Your task to perform on an android device: Go to calendar. Show me events next week Image 0: 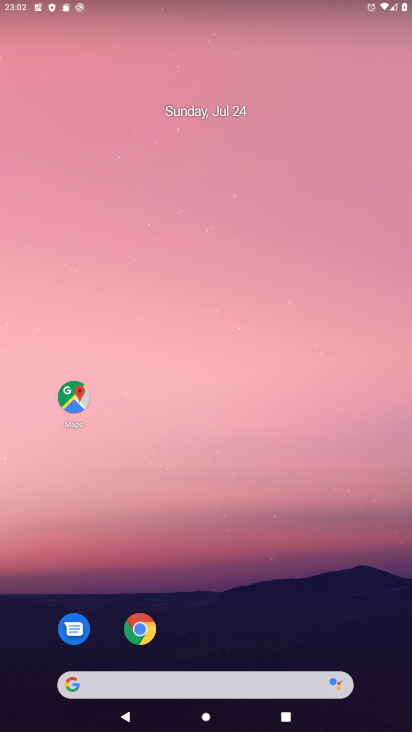
Step 0: drag from (193, 654) to (284, 228)
Your task to perform on an android device: Go to calendar. Show me events next week Image 1: 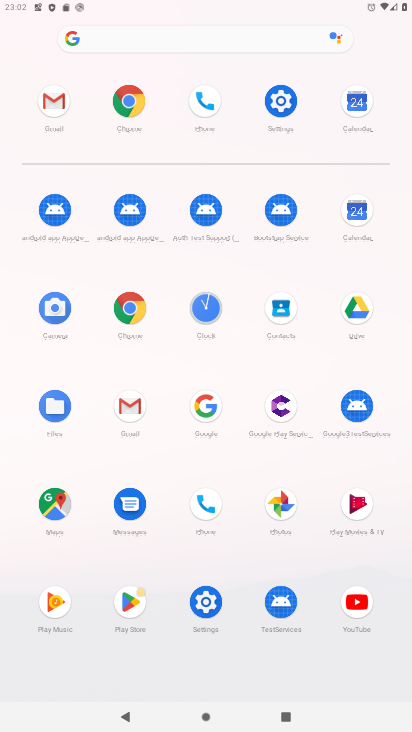
Step 1: click (349, 211)
Your task to perform on an android device: Go to calendar. Show me events next week Image 2: 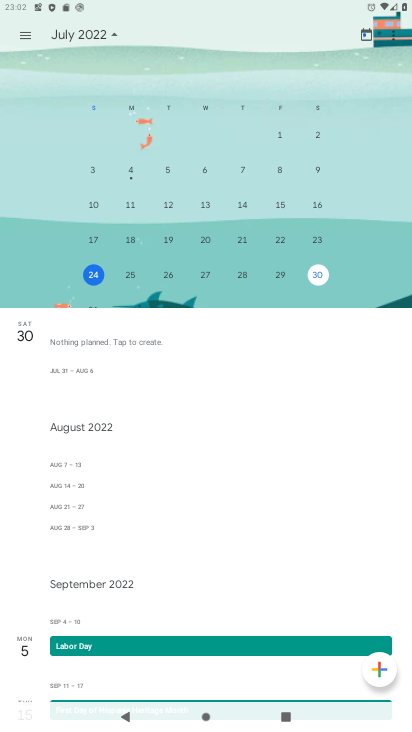
Step 2: drag from (303, 235) to (15, 261)
Your task to perform on an android device: Go to calendar. Show me events next week Image 3: 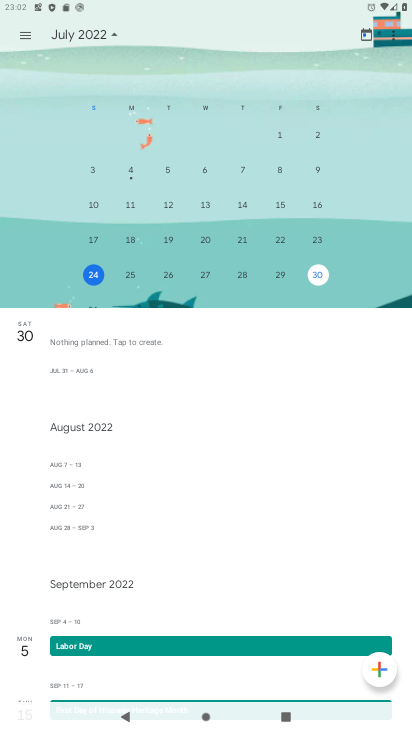
Step 3: drag from (242, 267) to (236, 85)
Your task to perform on an android device: Go to calendar. Show me events next week Image 4: 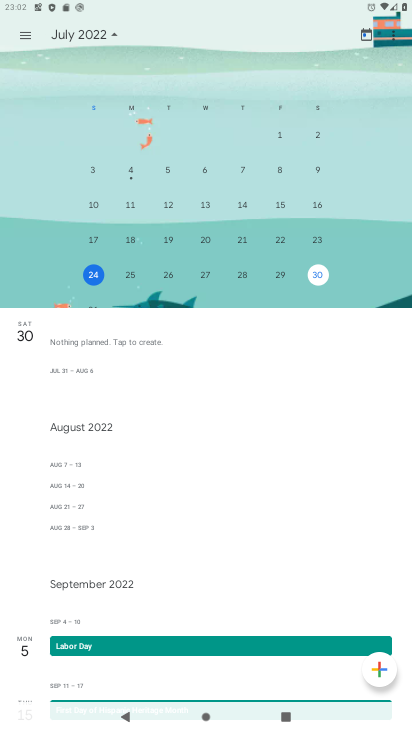
Step 4: click (94, 301)
Your task to perform on an android device: Go to calendar. Show me events next week Image 5: 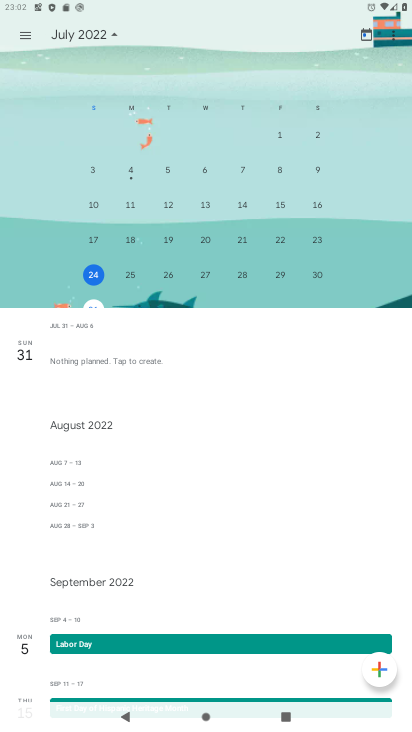
Step 5: click (91, 303)
Your task to perform on an android device: Go to calendar. Show me events next week Image 6: 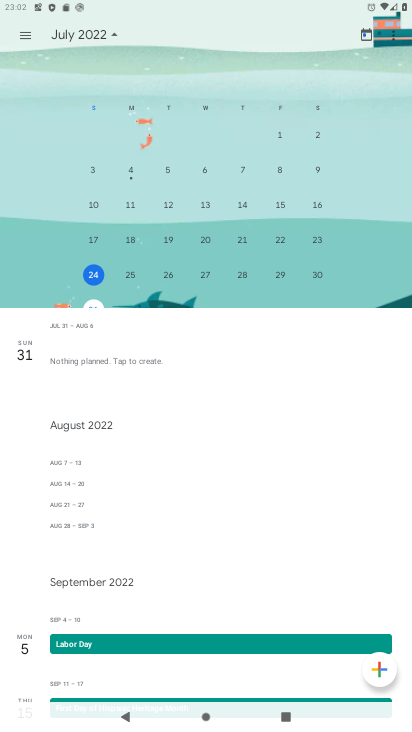
Step 6: task complete